Your task to perform on an android device: Open ESPN.com Image 0: 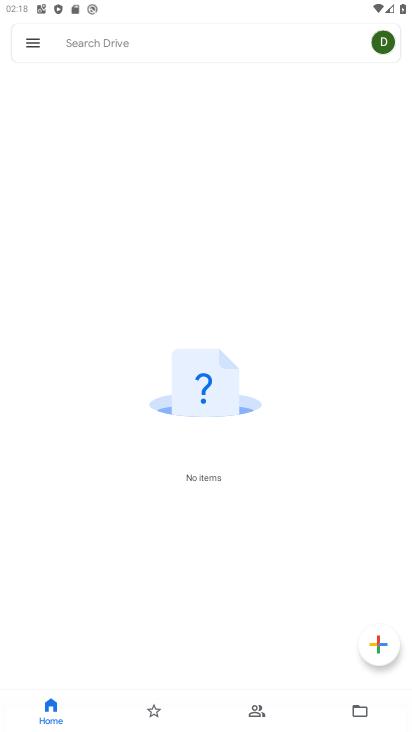
Step 0: press home button
Your task to perform on an android device: Open ESPN.com Image 1: 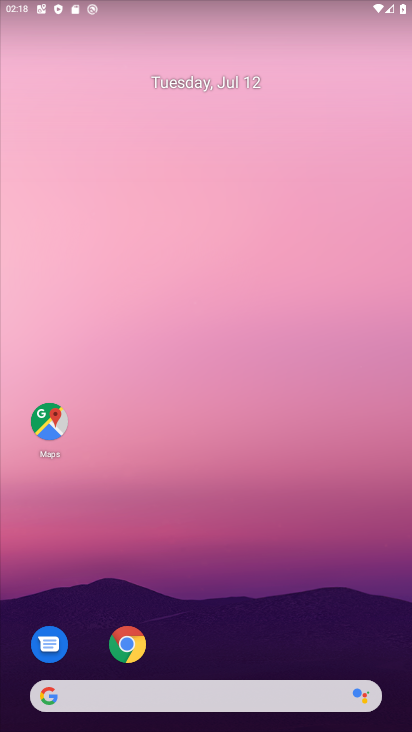
Step 1: click (109, 643)
Your task to perform on an android device: Open ESPN.com Image 2: 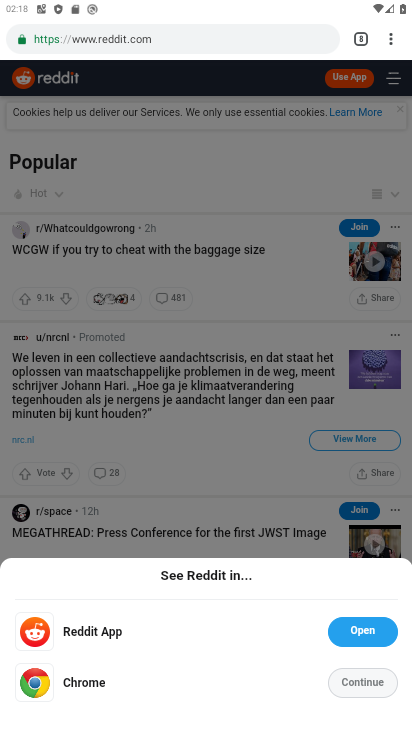
Step 2: click (356, 43)
Your task to perform on an android device: Open ESPN.com Image 3: 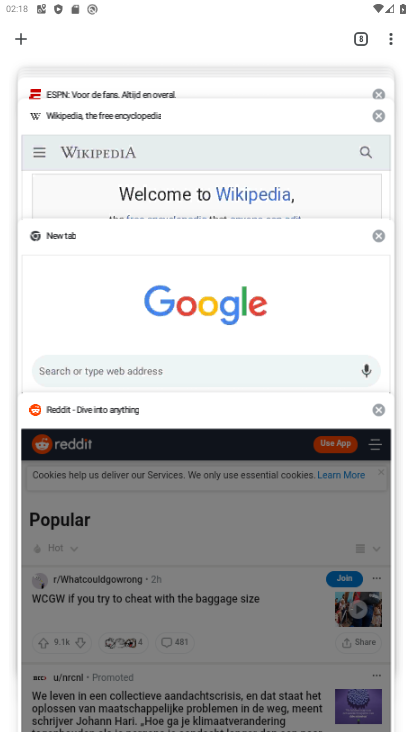
Step 3: click (17, 35)
Your task to perform on an android device: Open ESPN.com Image 4: 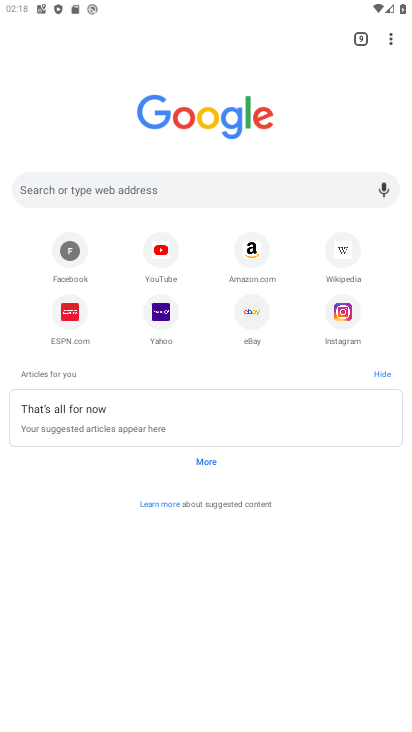
Step 4: click (67, 320)
Your task to perform on an android device: Open ESPN.com Image 5: 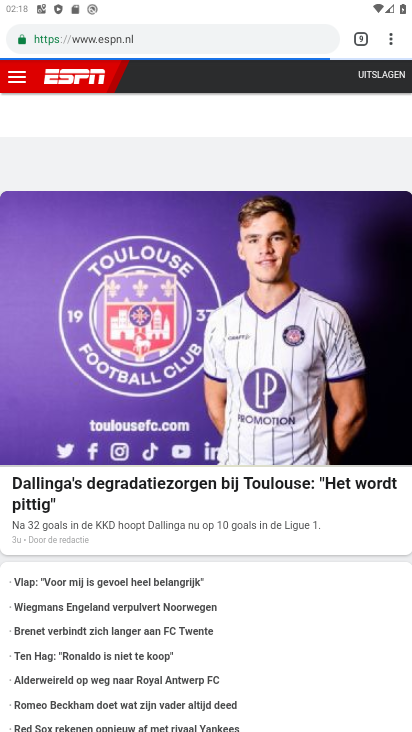
Step 5: task complete